Your task to perform on an android device: What's a goodrestaurant in Austin? Image 0: 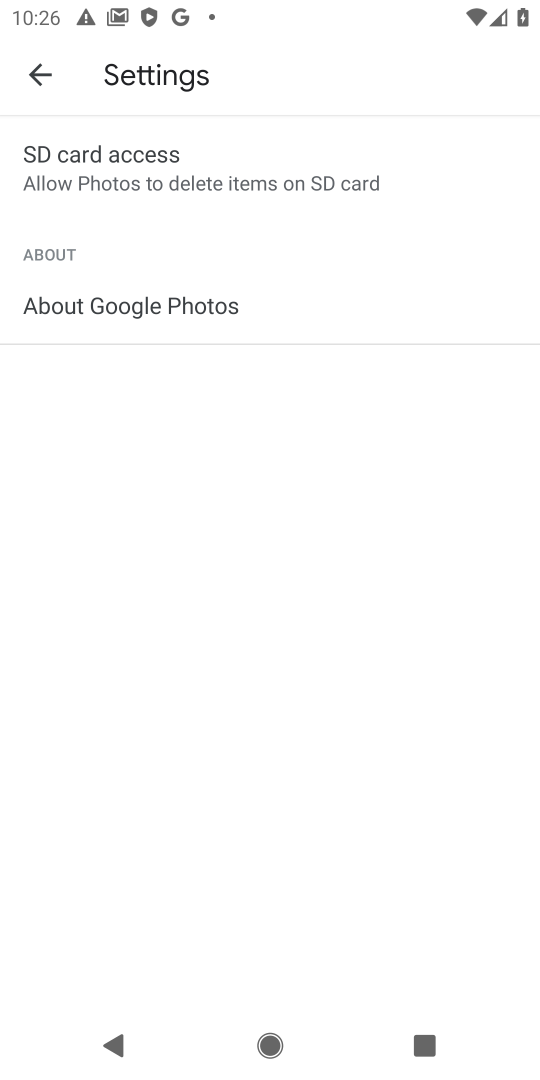
Step 0: press home button
Your task to perform on an android device: What's a goodrestaurant in Austin? Image 1: 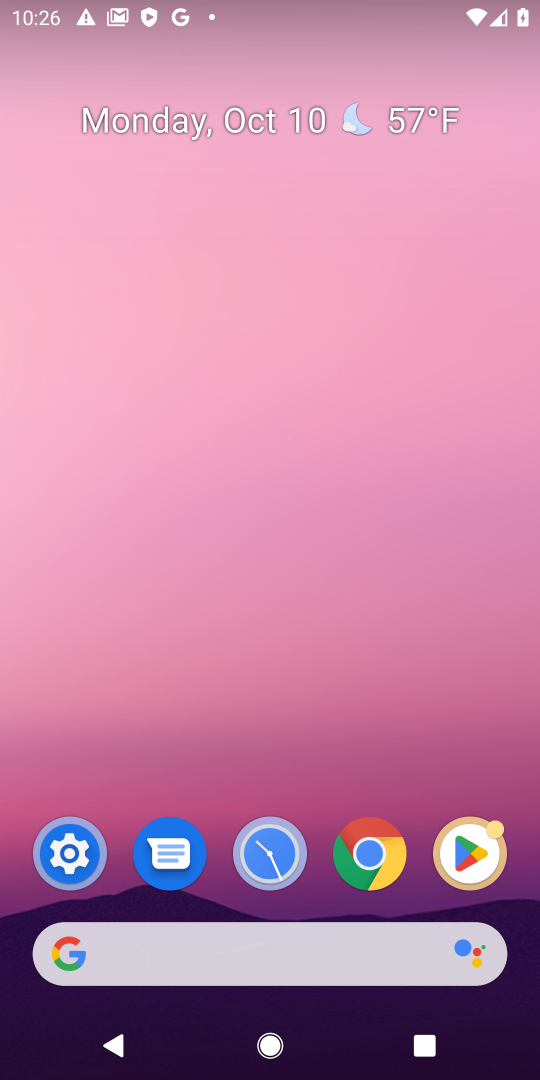
Step 1: click (238, 955)
Your task to perform on an android device: What's a goodrestaurant in Austin? Image 2: 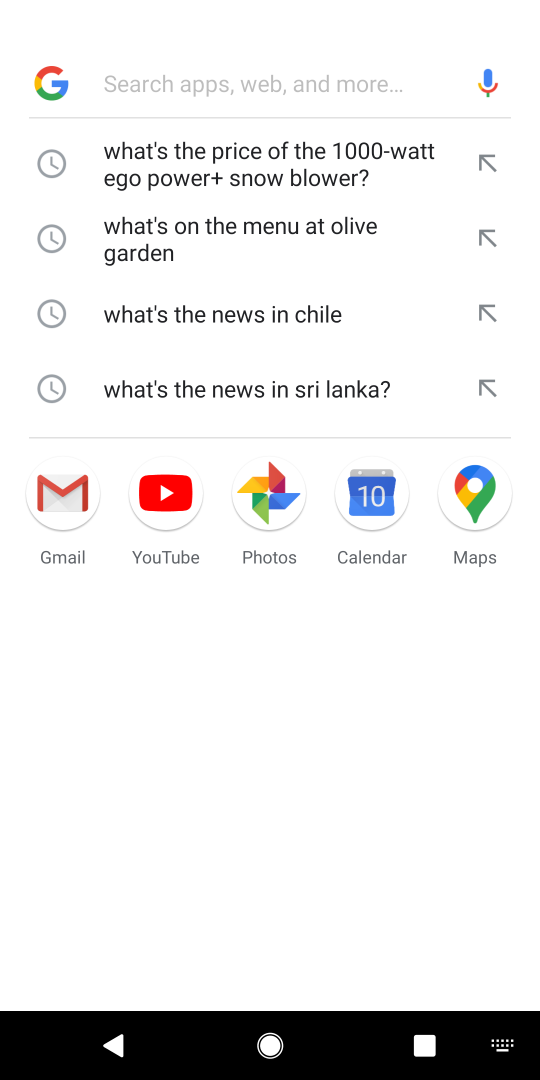
Step 2: type "What's a goodrestaurant in Austin?"
Your task to perform on an android device: What's a goodrestaurant in Austin? Image 3: 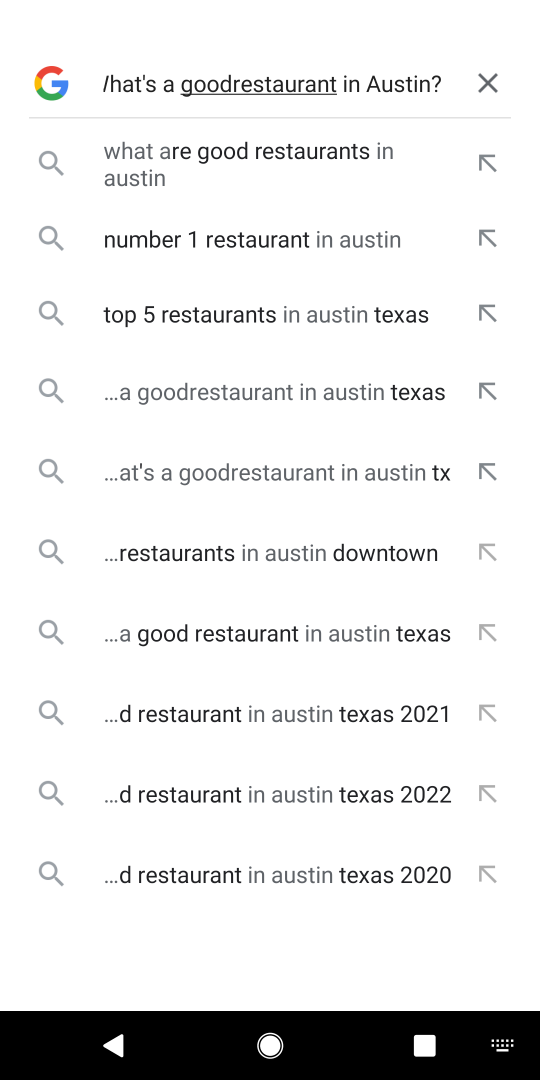
Step 3: press enter
Your task to perform on an android device: What's a goodrestaurant in Austin? Image 4: 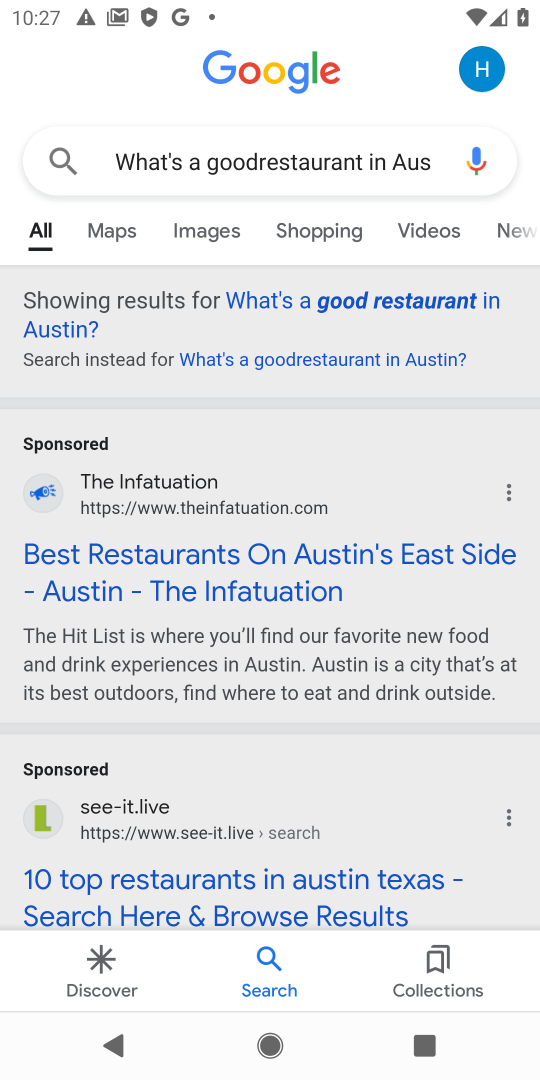
Step 4: drag from (376, 714) to (401, 434)
Your task to perform on an android device: What's a goodrestaurant in Austin? Image 5: 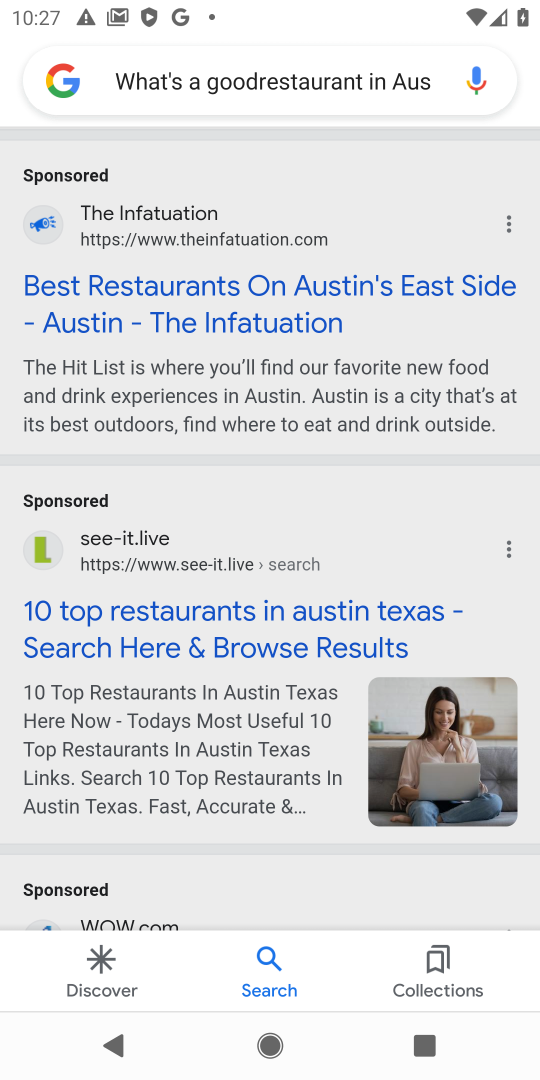
Step 5: click (277, 292)
Your task to perform on an android device: What's a goodrestaurant in Austin? Image 6: 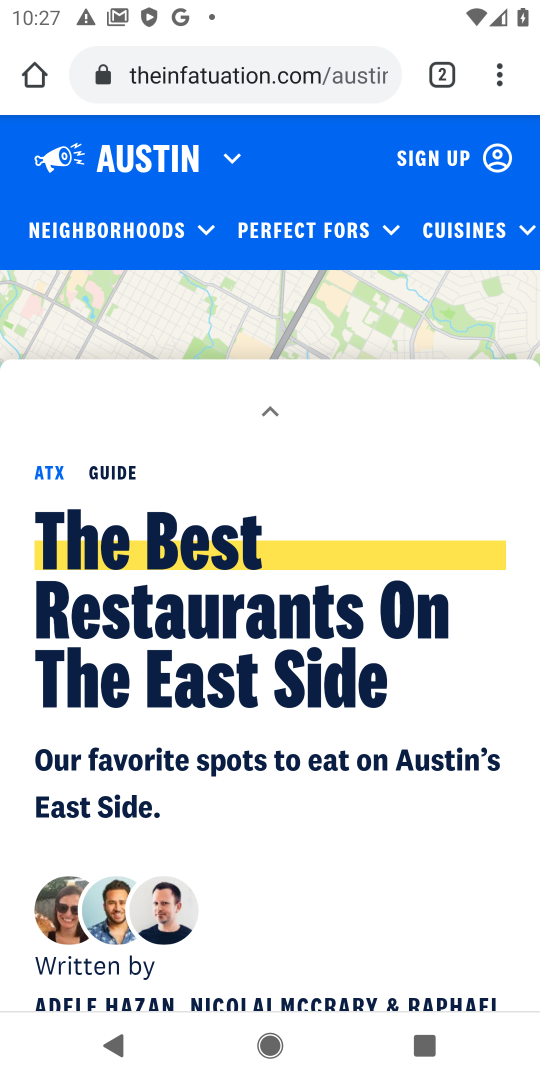
Step 6: task complete